Your task to perform on an android device: delete location history Image 0: 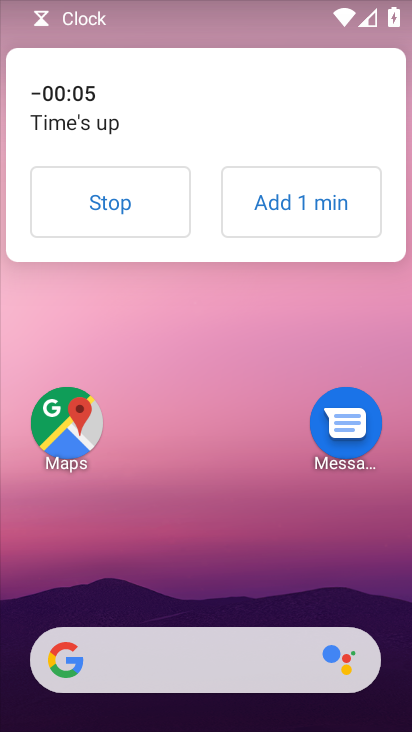
Step 0: click (186, 483)
Your task to perform on an android device: delete location history Image 1: 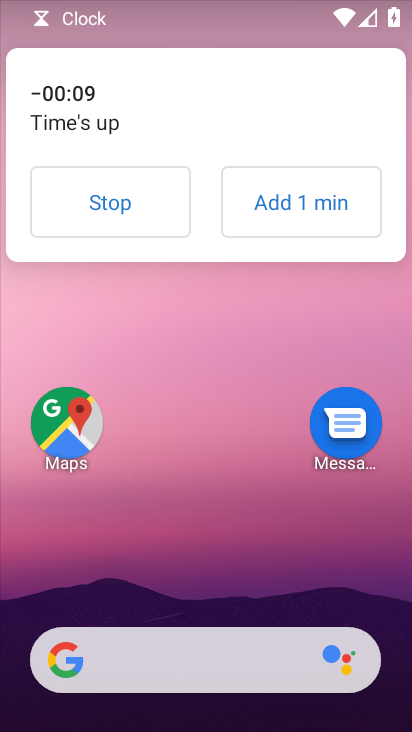
Step 1: click (164, 218)
Your task to perform on an android device: delete location history Image 2: 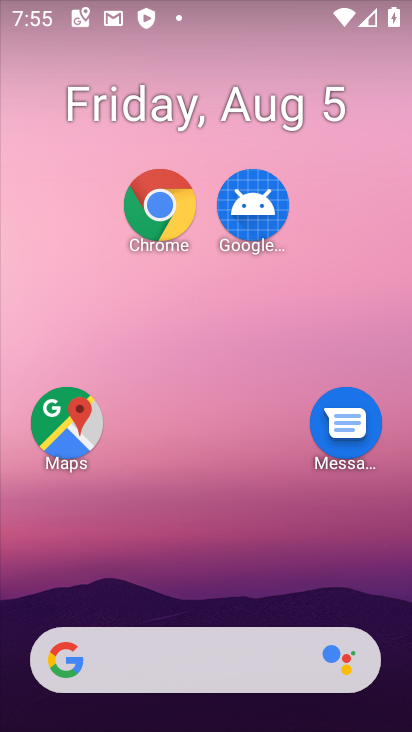
Step 2: drag from (247, 583) to (143, 22)
Your task to perform on an android device: delete location history Image 3: 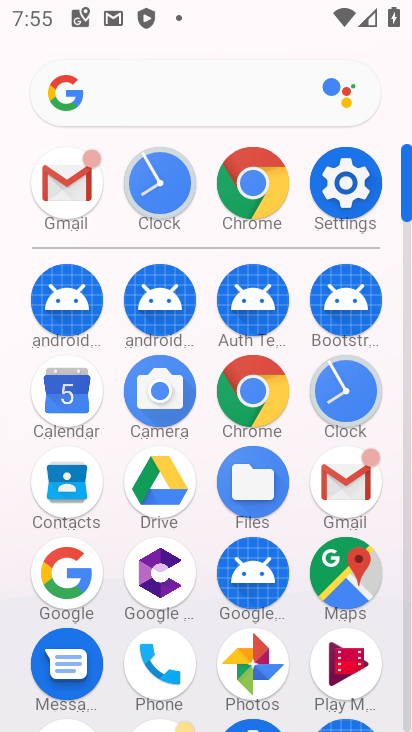
Step 3: click (341, 168)
Your task to perform on an android device: delete location history Image 4: 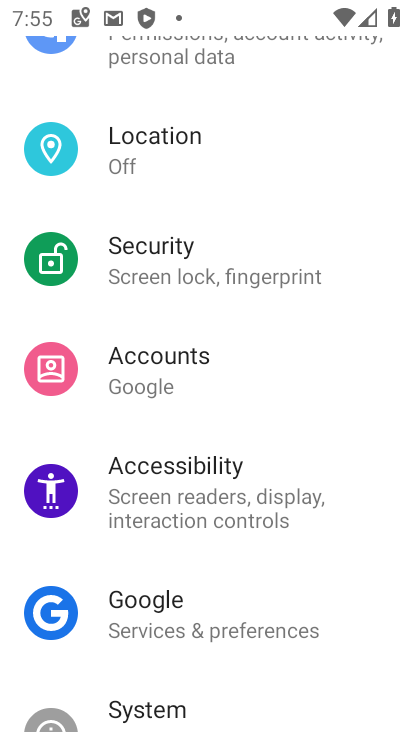
Step 4: task complete